Your task to perform on an android device: Is it going to rain today? Image 0: 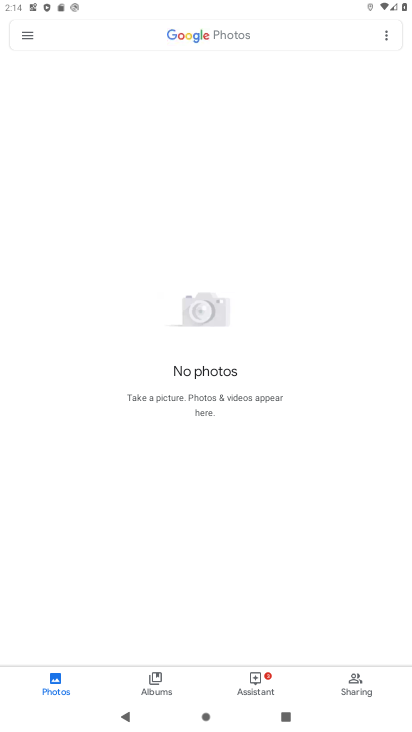
Step 0: press home button
Your task to perform on an android device: Is it going to rain today? Image 1: 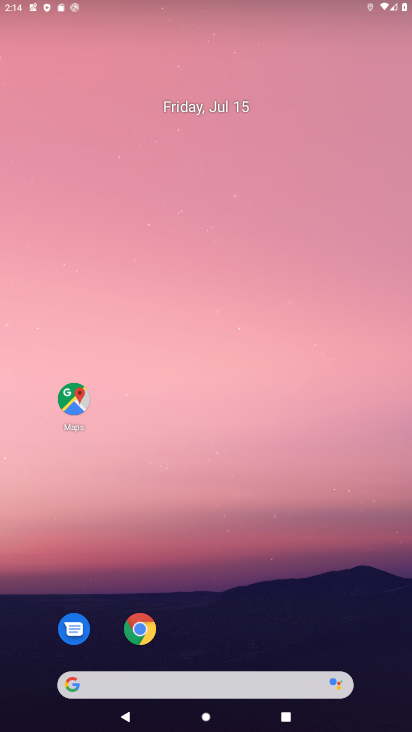
Step 1: drag from (218, 637) to (231, 112)
Your task to perform on an android device: Is it going to rain today? Image 2: 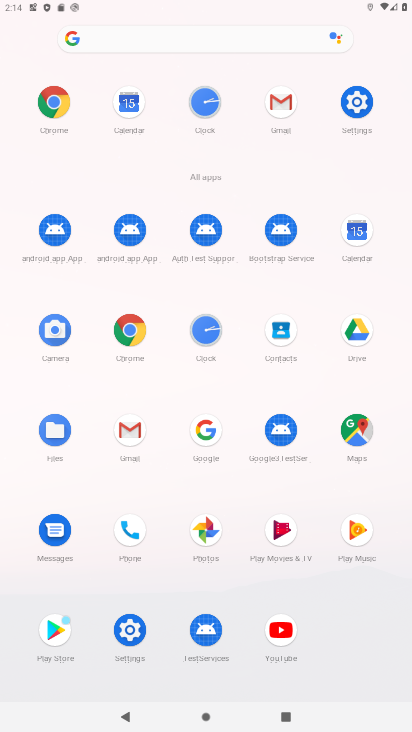
Step 2: click (205, 428)
Your task to perform on an android device: Is it going to rain today? Image 3: 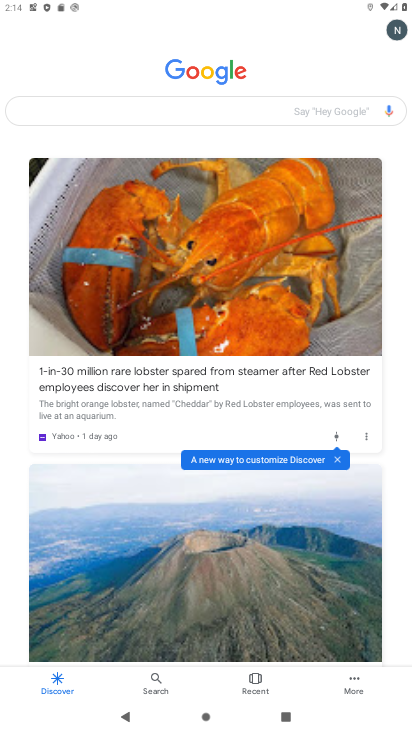
Step 3: click (228, 107)
Your task to perform on an android device: Is it going to rain today? Image 4: 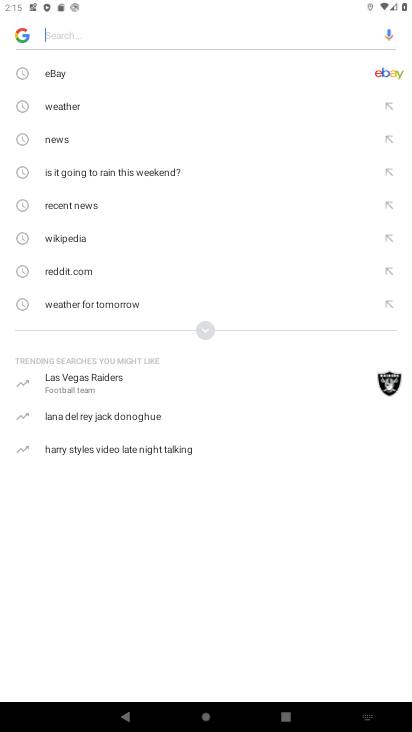
Step 4: type "is it going to rain today"
Your task to perform on an android device: Is it going to rain today? Image 5: 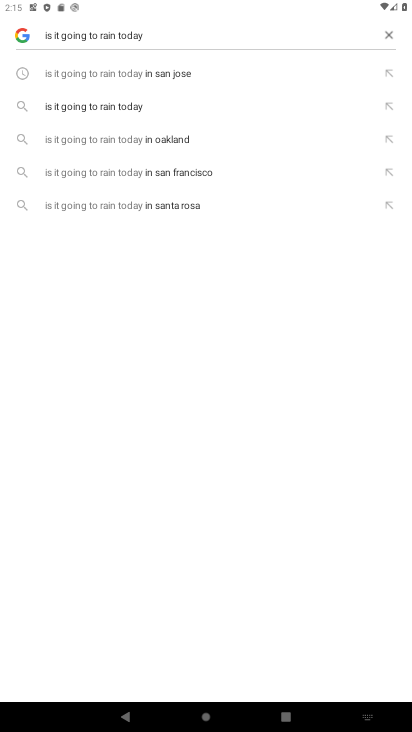
Step 5: click (130, 104)
Your task to perform on an android device: Is it going to rain today? Image 6: 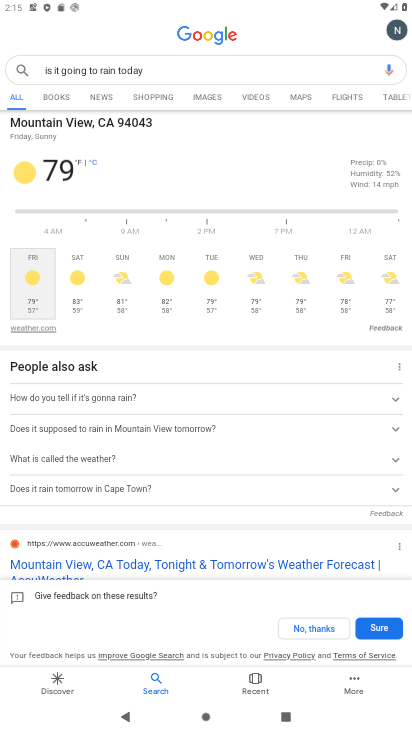
Step 6: task complete